Your task to perform on an android device: Open my contact list Image 0: 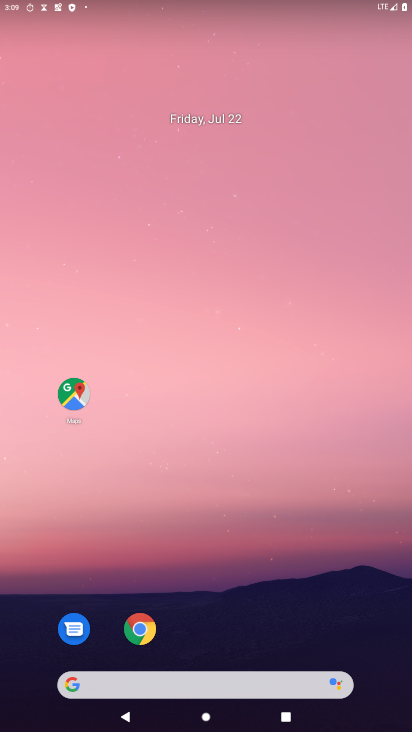
Step 0: drag from (226, 615) to (329, 143)
Your task to perform on an android device: Open my contact list Image 1: 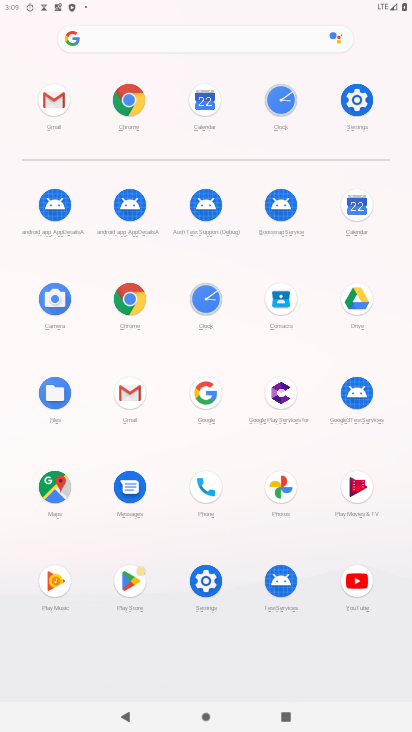
Step 1: click (279, 298)
Your task to perform on an android device: Open my contact list Image 2: 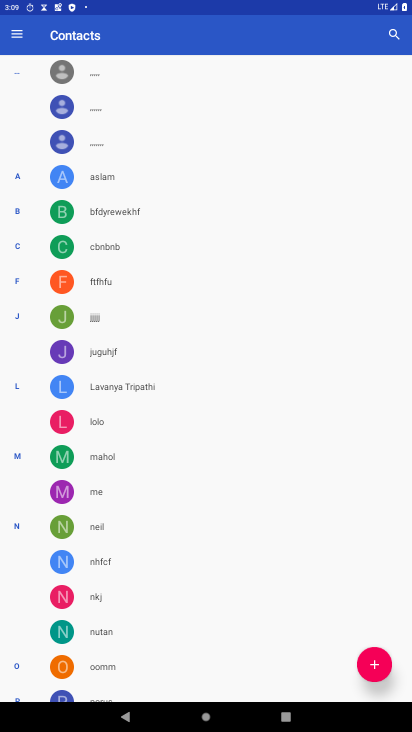
Step 2: task complete